Your task to perform on an android device: Show me popular games on the Play Store Image 0: 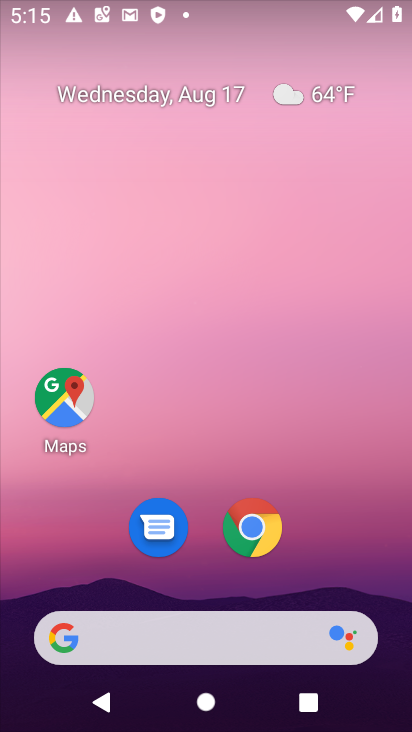
Step 0: drag from (196, 582) to (196, 266)
Your task to perform on an android device: Show me popular games on the Play Store Image 1: 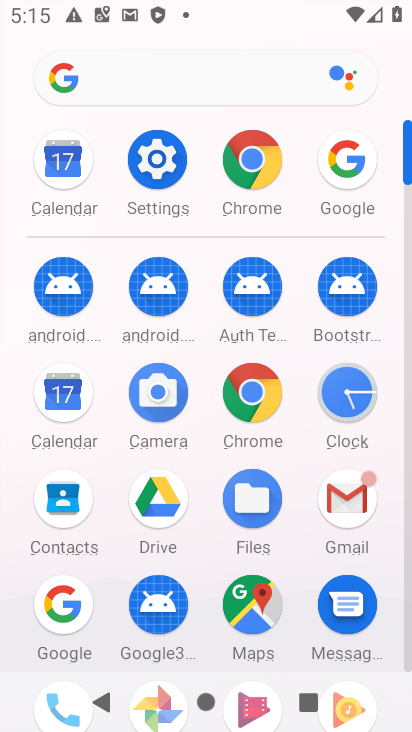
Step 1: drag from (207, 611) to (207, 390)
Your task to perform on an android device: Show me popular games on the Play Store Image 2: 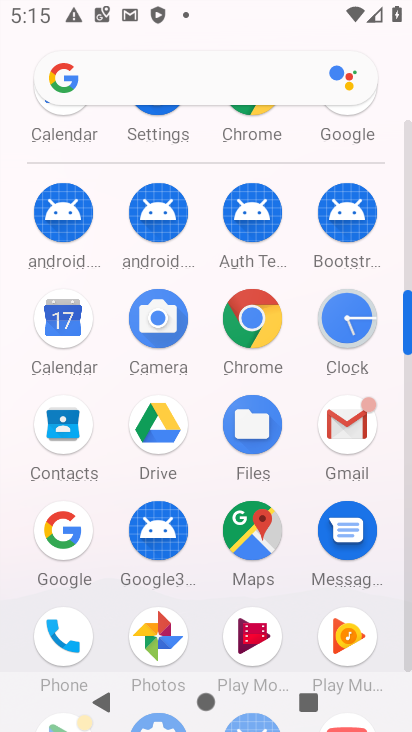
Step 2: drag from (100, 636) to (127, 402)
Your task to perform on an android device: Show me popular games on the Play Store Image 3: 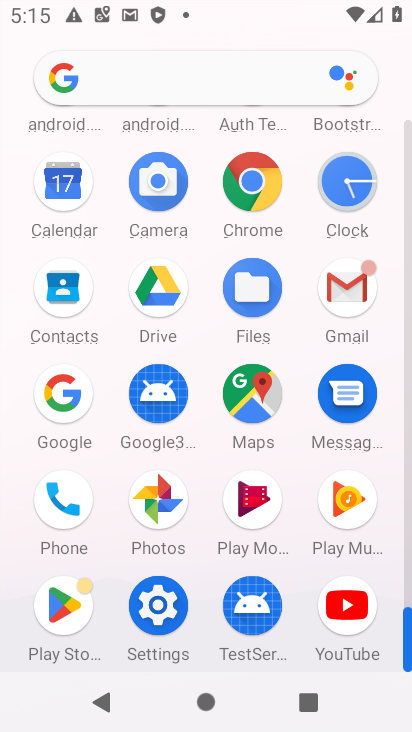
Step 3: click (50, 611)
Your task to perform on an android device: Show me popular games on the Play Store Image 4: 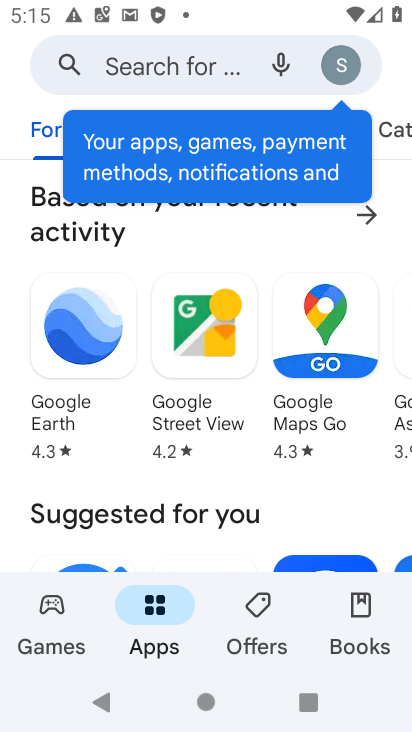
Step 4: click (213, 66)
Your task to perform on an android device: Show me popular games on the Play Store Image 5: 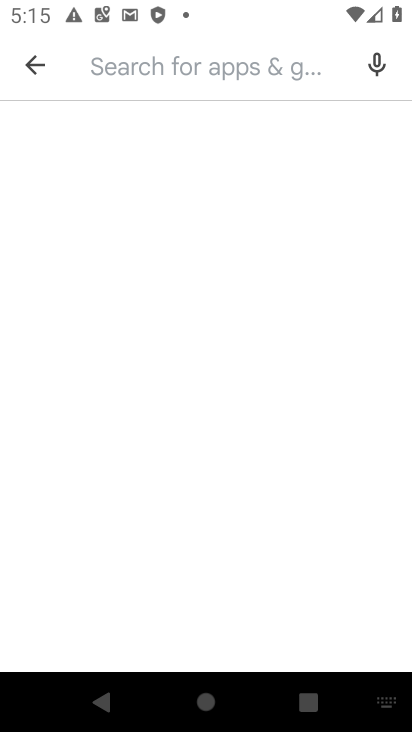
Step 5: type "popular games"
Your task to perform on an android device: Show me popular games on the Play Store Image 6: 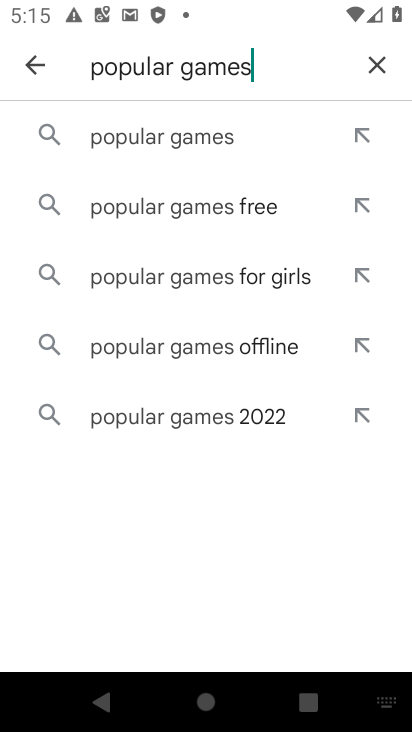
Step 6: click (133, 138)
Your task to perform on an android device: Show me popular games on the Play Store Image 7: 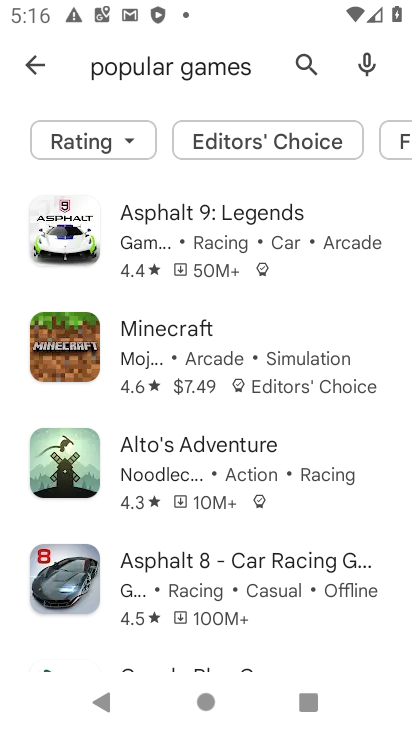
Step 7: task complete